Your task to perform on an android device: empty trash in google photos Image 0: 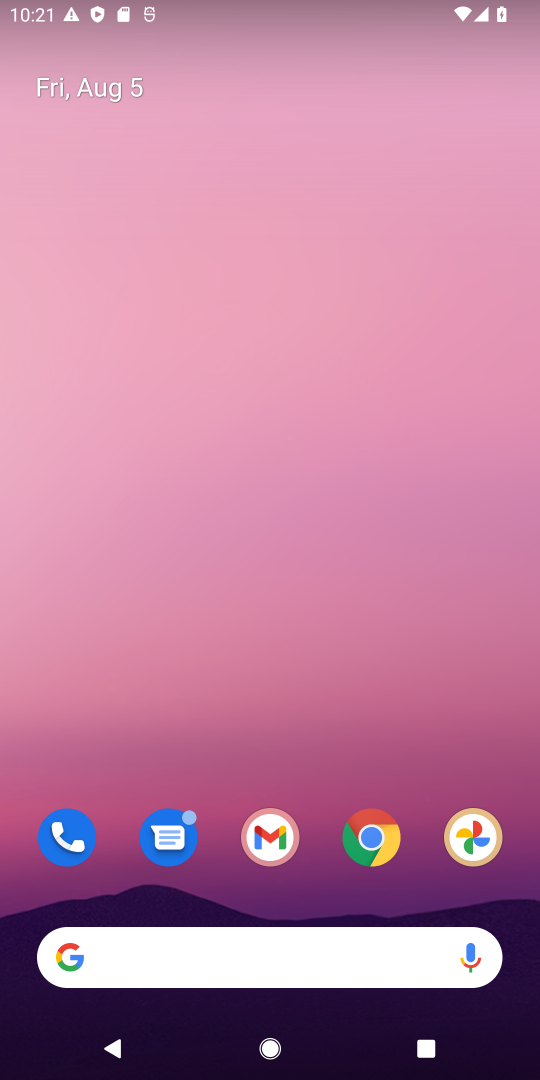
Step 0: drag from (313, 716) to (351, 573)
Your task to perform on an android device: empty trash in google photos Image 1: 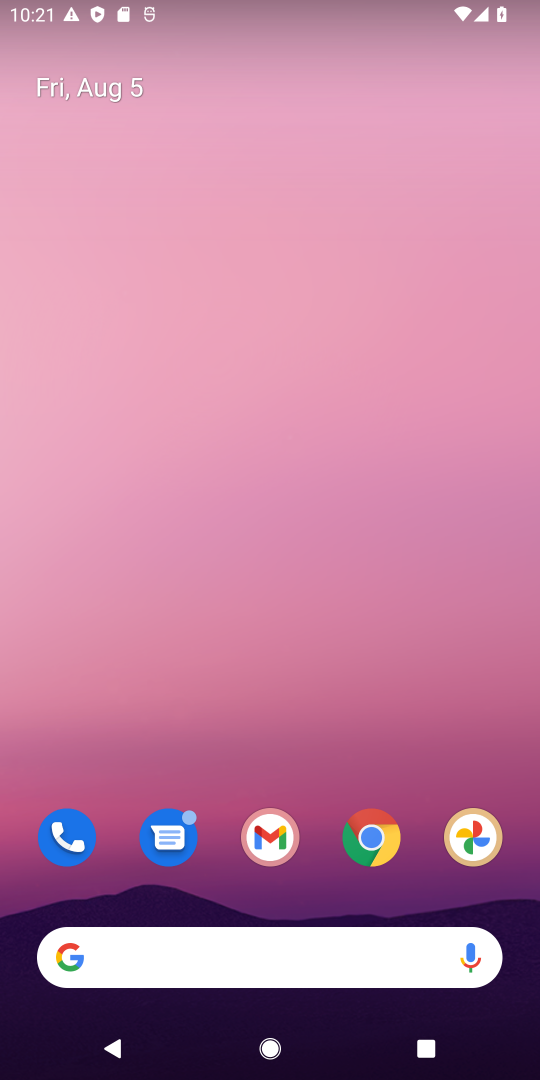
Step 1: click (472, 822)
Your task to perform on an android device: empty trash in google photos Image 2: 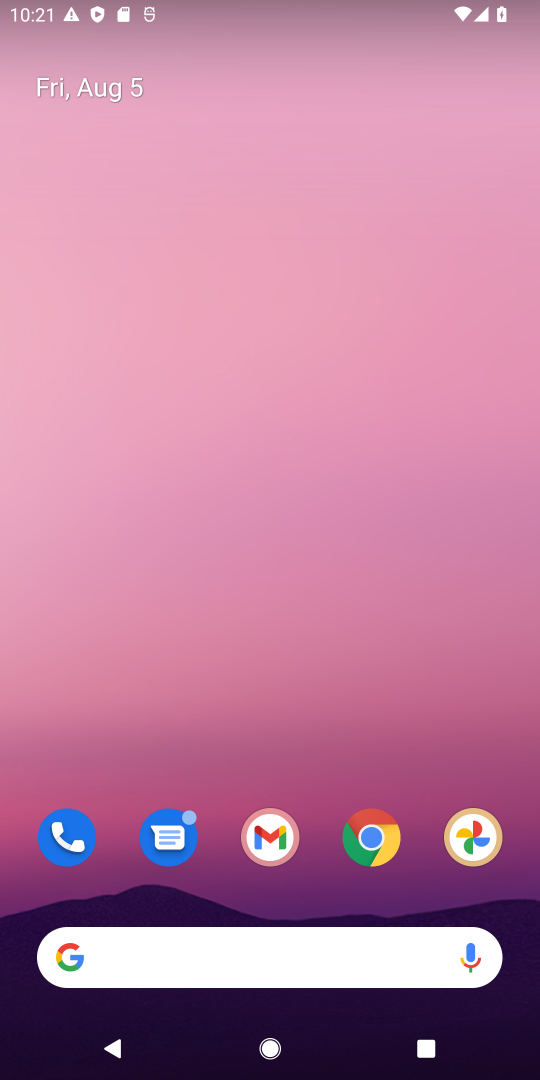
Step 2: click (474, 825)
Your task to perform on an android device: empty trash in google photos Image 3: 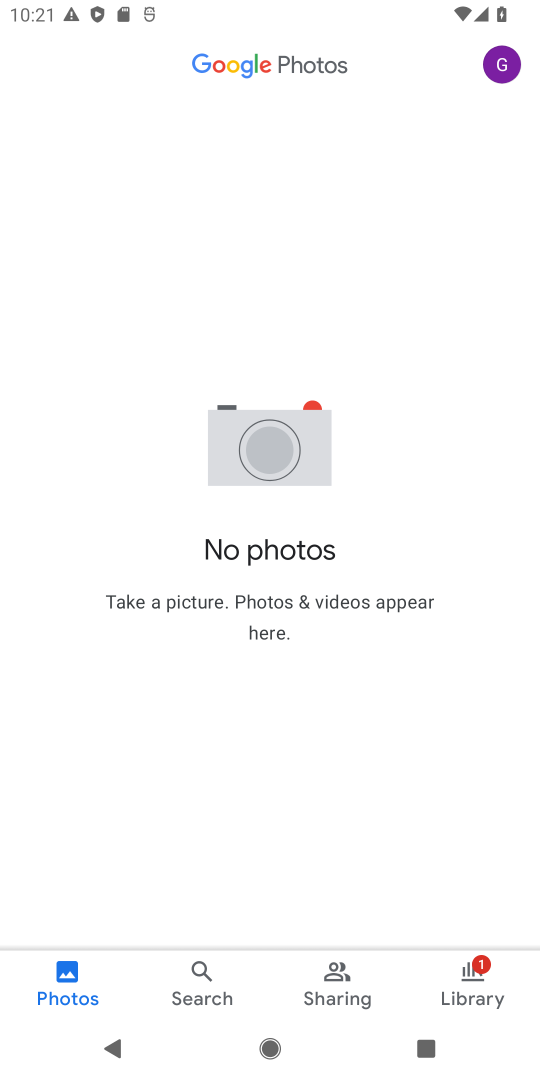
Step 3: click (335, 61)
Your task to perform on an android device: empty trash in google photos Image 4: 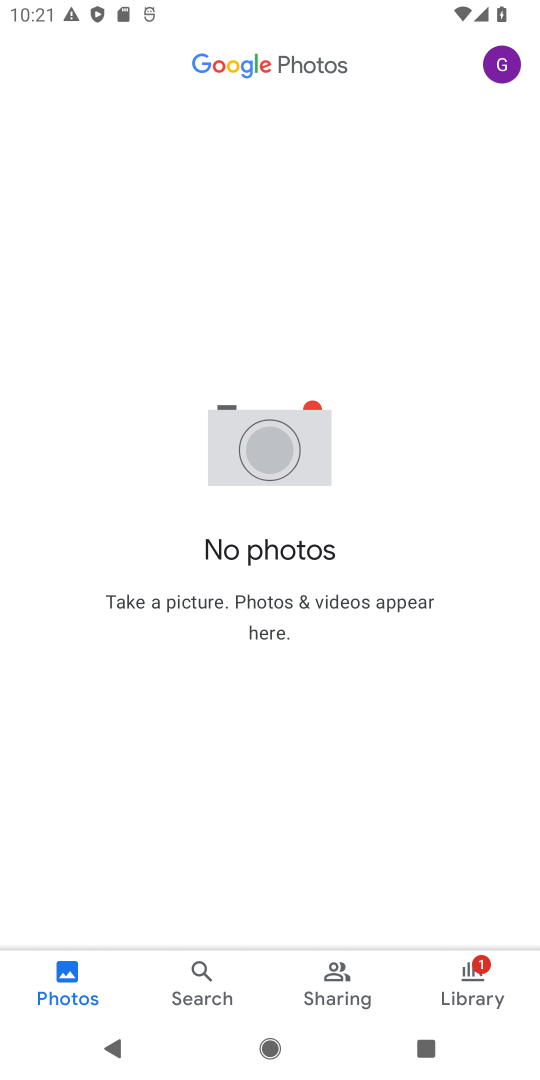
Step 4: click (495, 66)
Your task to perform on an android device: empty trash in google photos Image 5: 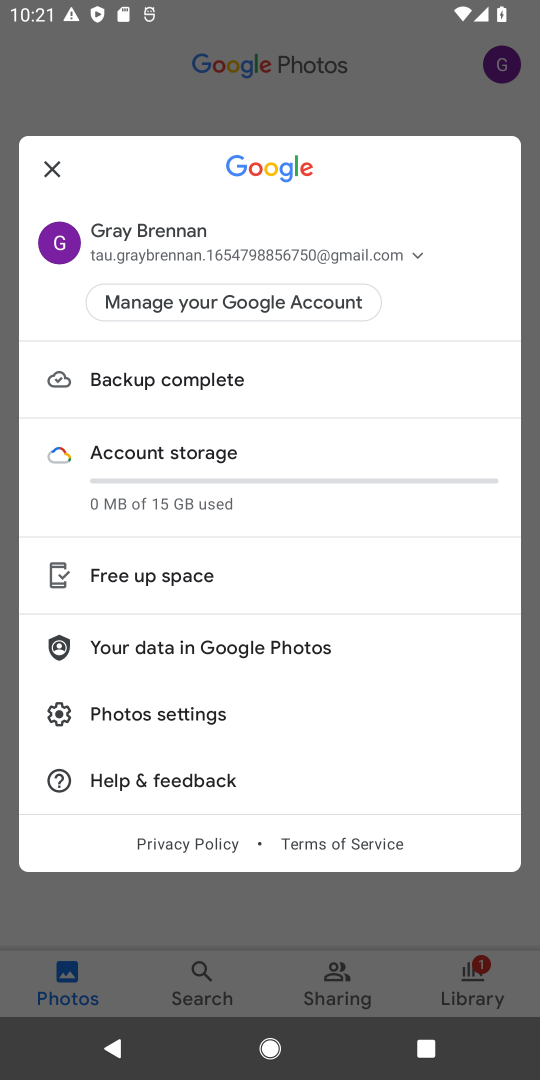
Step 5: click (181, 705)
Your task to perform on an android device: empty trash in google photos Image 6: 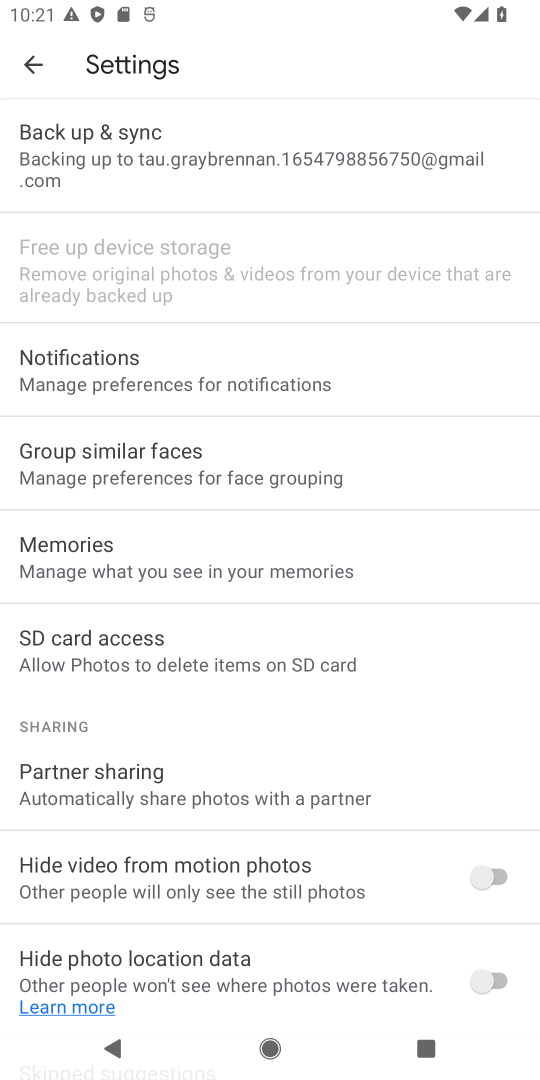
Step 6: drag from (219, 816) to (269, 95)
Your task to perform on an android device: empty trash in google photos Image 7: 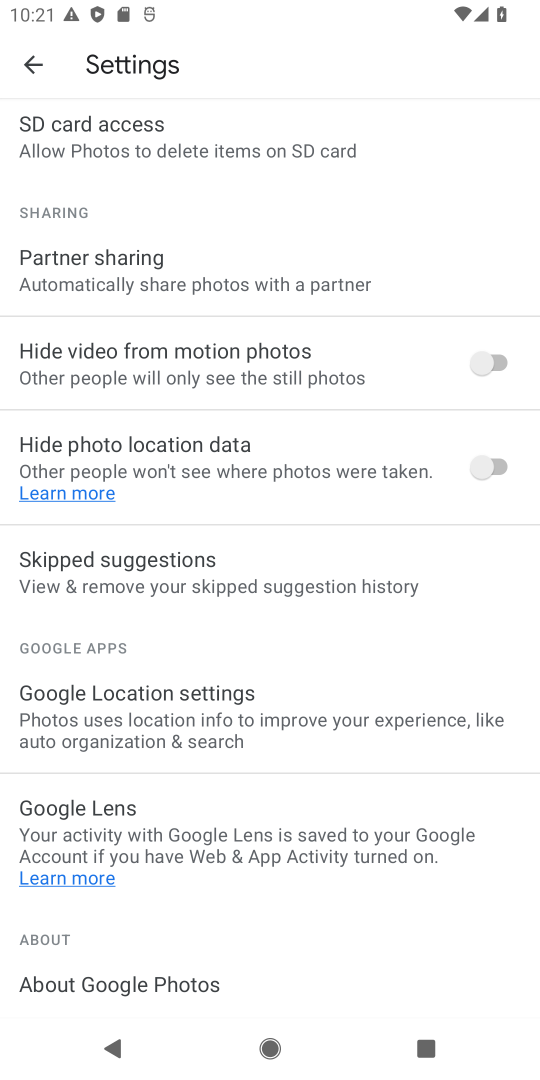
Step 7: click (39, 58)
Your task to perform on an android device: empty trash in google photos Image 8: 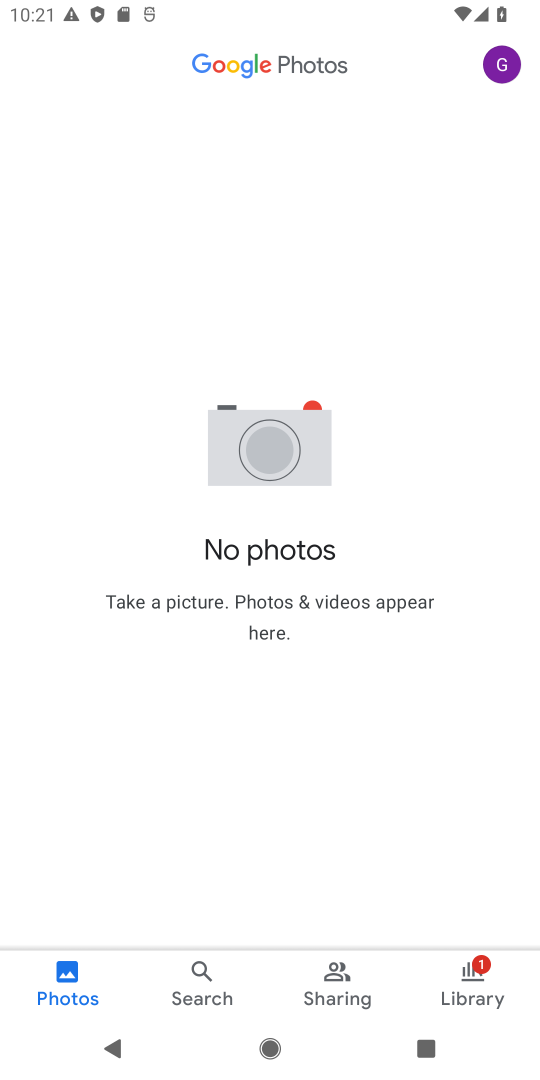
Step 8: click (507, 70)
Your task to perform on an android device: empty trash in google photos Image 9: 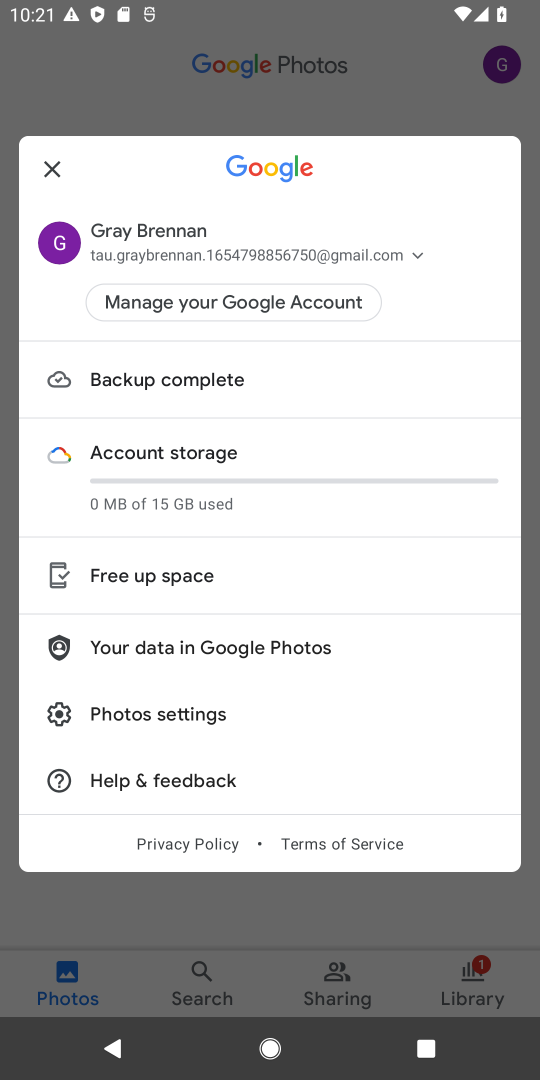
Step 9: click (215, 557)
Your task to perform on an android device: empty trash in google photos Image 10: 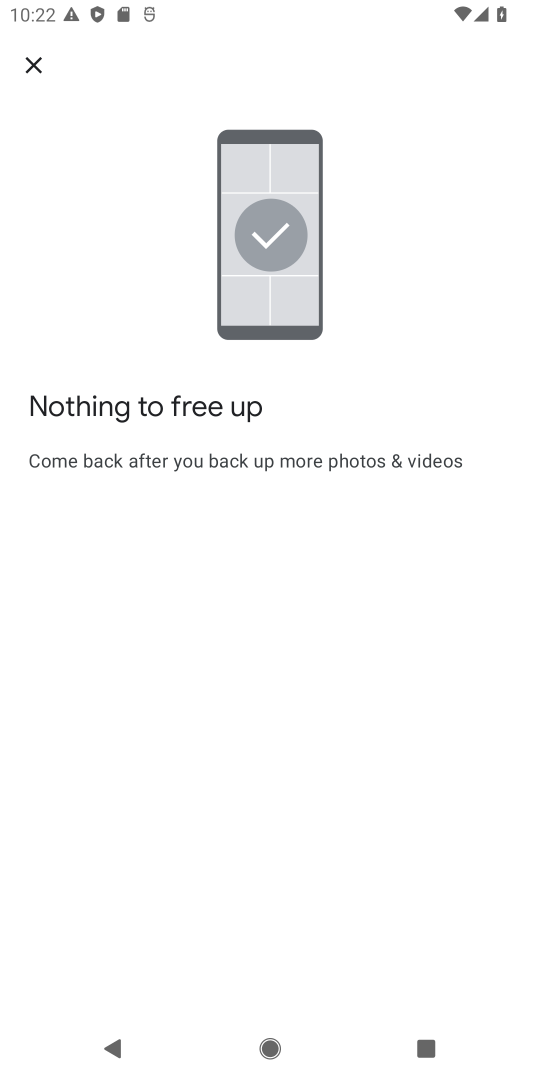
Step 10: task complete